Your task to perform on an android device: toggle location history Image 0: 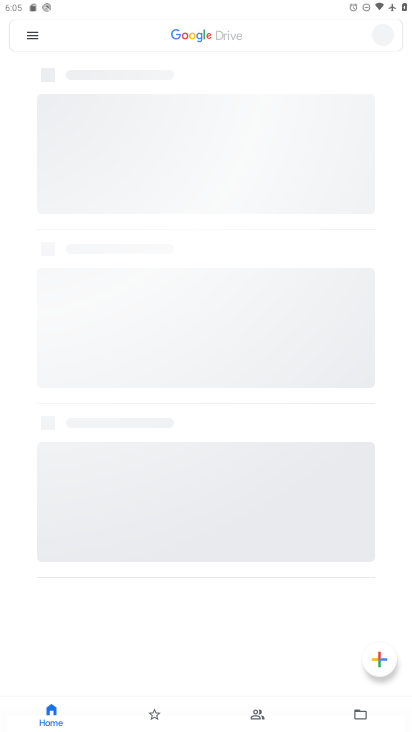
Step 0: drag from (362, 658) to (409, 433)
Your task to perform on an android device: toggle location history Image 1: 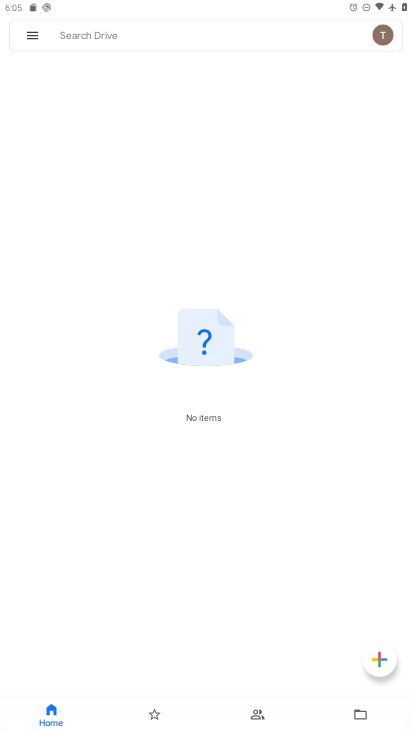
Step 1: press home button
Your task to perform on an android device: toggle location history Image 2: 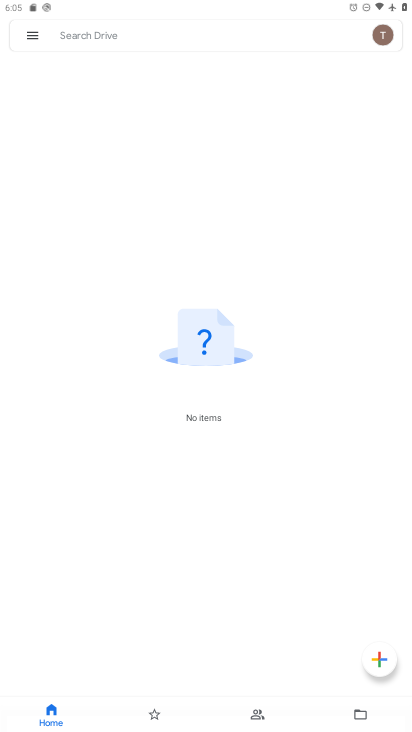
Step 2: drag from (409, 433) to (411, 582)
Your task to perform on an android device: toggle location history Image 3: 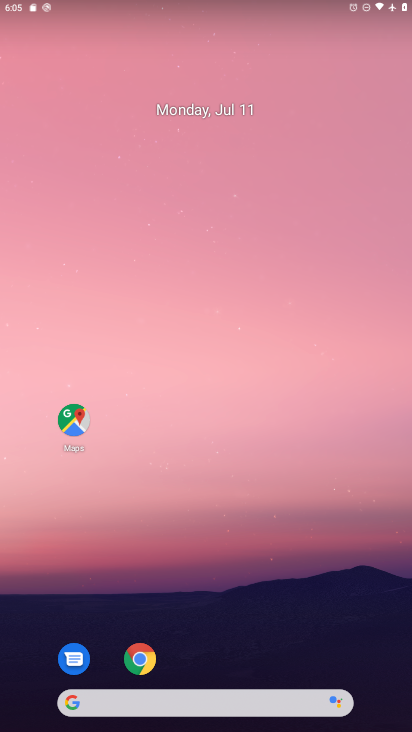
Step 3: click (75, 421)
Your task to perform on an android device: toggle location history Image 4: 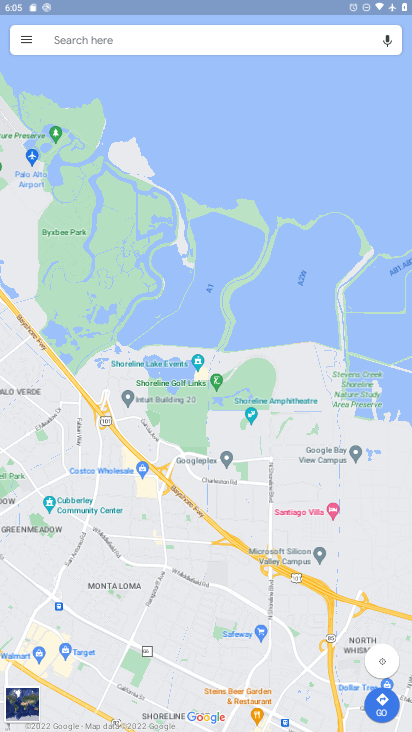
Step 4: click (23, 40)
Your task to perform on an android device: toggle location history Image 5: 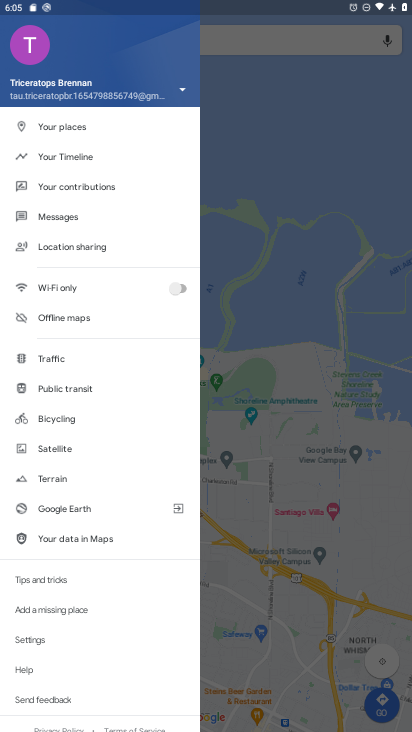
Step 5: click (37, 638)
Your task to perform on an android device: toggle location history Image 6: 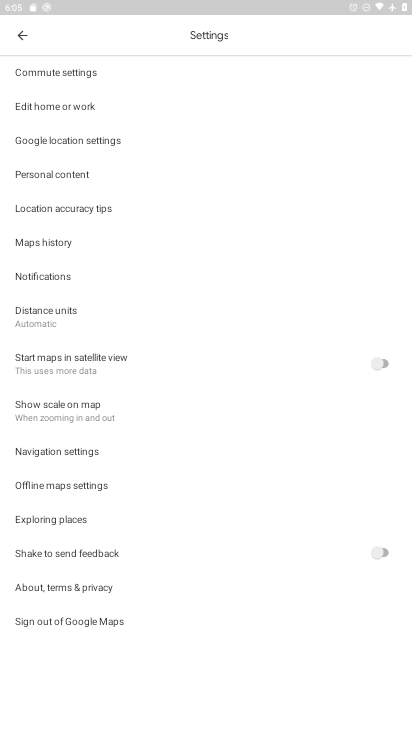
Step 6: click (45, 171)
Your task to perform on an android device: toggle location history Image 7: 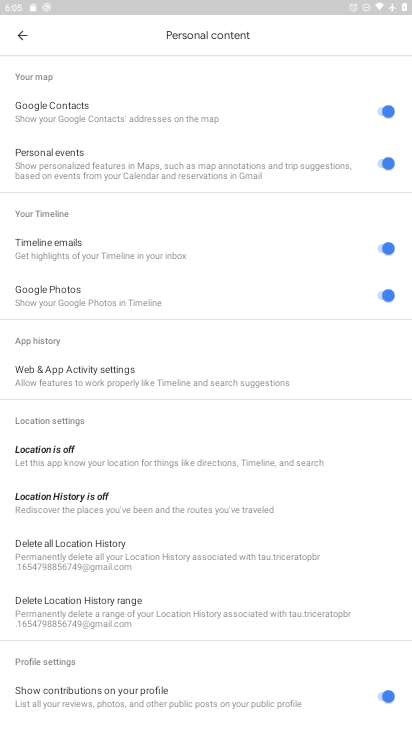
Step 7: click (42, 498)
Your task to perform on an android device: toggle location history Image 8: 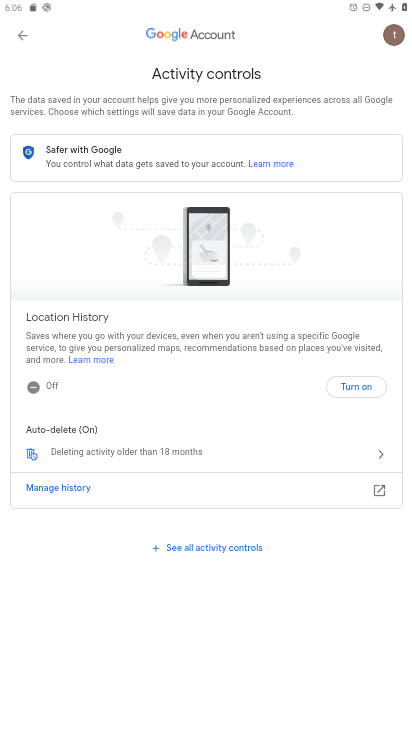
Step 8: click (354, 385)
Your task to perform on an android device: toggle location history Image 9: 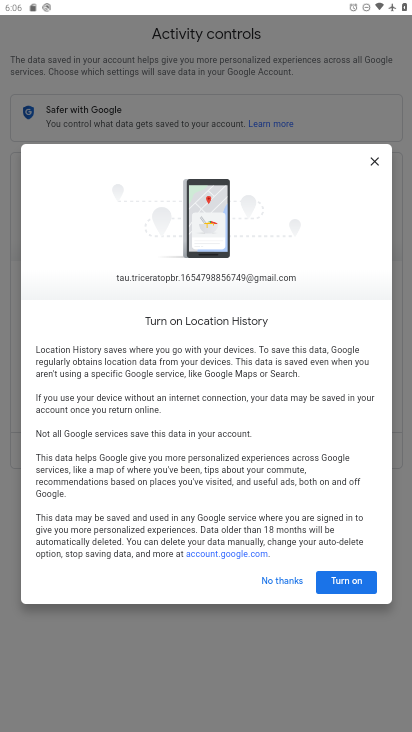
Step 9: click (342, 584)
Your task to perform on an android device: toggle location history Image 10: 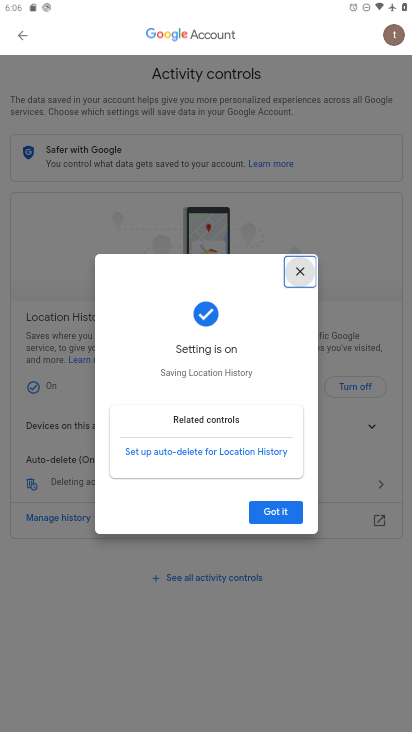
Step 10: click (274, 516)
Your task to perform on an android device: toggle location history Image 11: 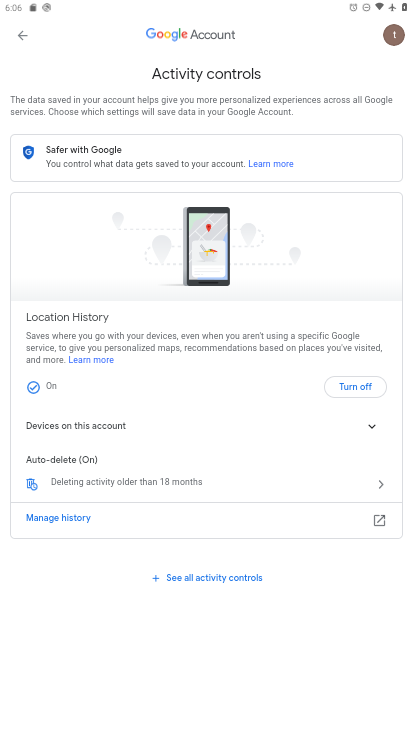
Step 11: task complete